Your task to perform on an android device: snooze an email in the gmail app Image 0: 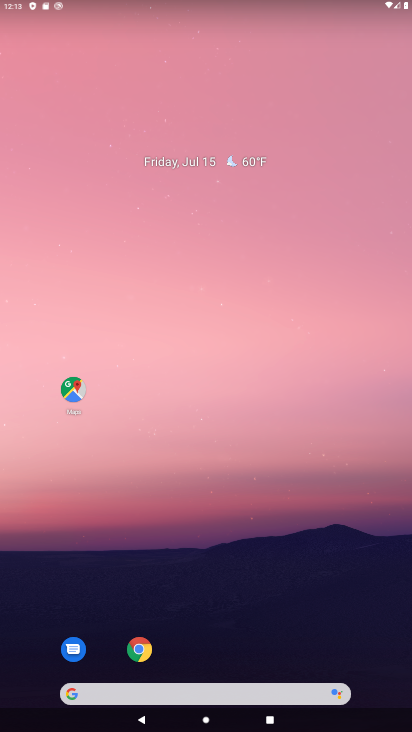
Step 0: drag from (277, 558) to (265, 252)
Your task to perform on an android device: snooze an email in the gmail app Image 1: 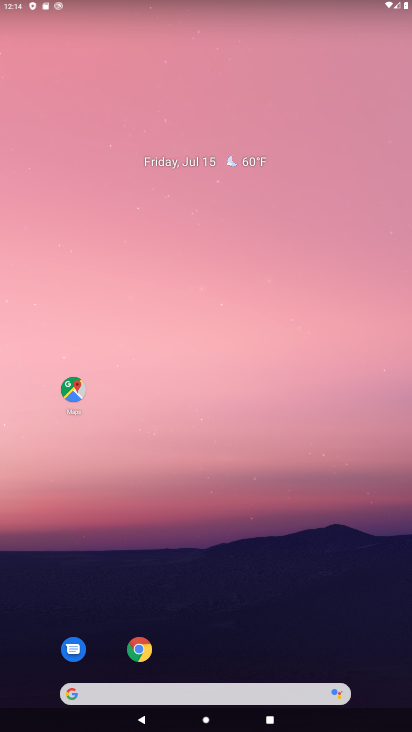
Step 1: drag from (199, 681) to (263, 145)
Your task to perform on an android device: snooze an email in the gmail app Image 2: 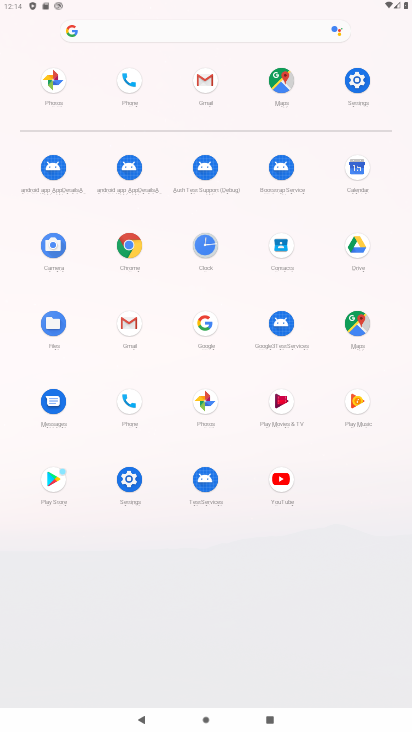
Step 2: click (215, 78)
Your task to perform on an android device: snooze an email in the gmail app Image 3: 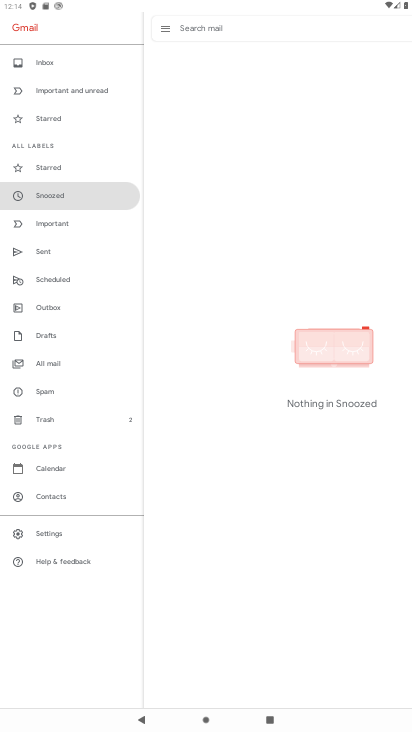
Step 3: click (64, 192)
Your task to perform on an android device: snooze an email in the gmail app Image 4: 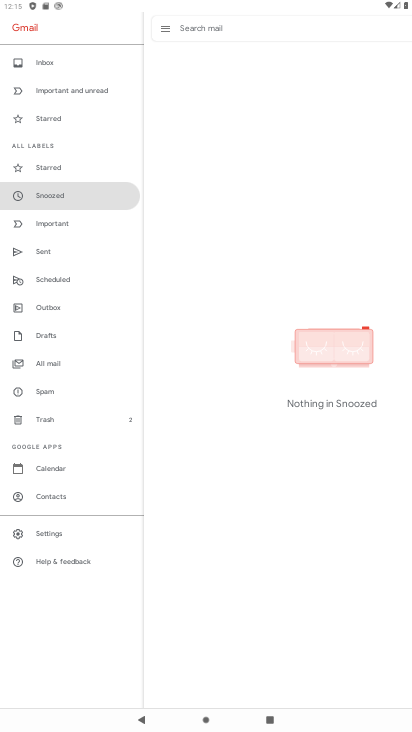
Step 4: task complete